Your task to perform on an android device: see sites visited before in the chrome app Image 0: 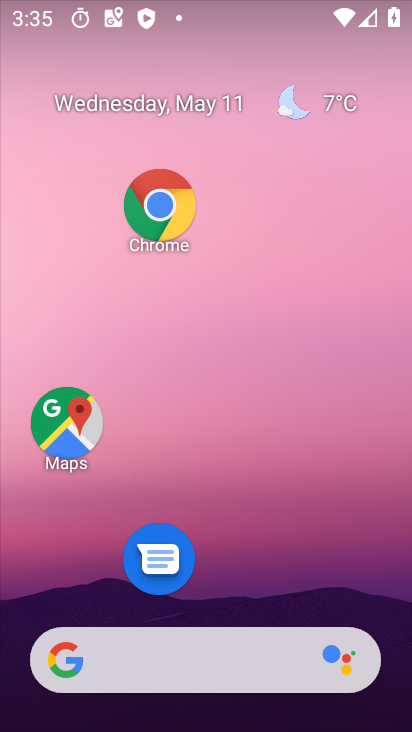
Step 0: click (154, 215)
Your task to perform on an android device: see sites visited before in the chrome app Image 1: 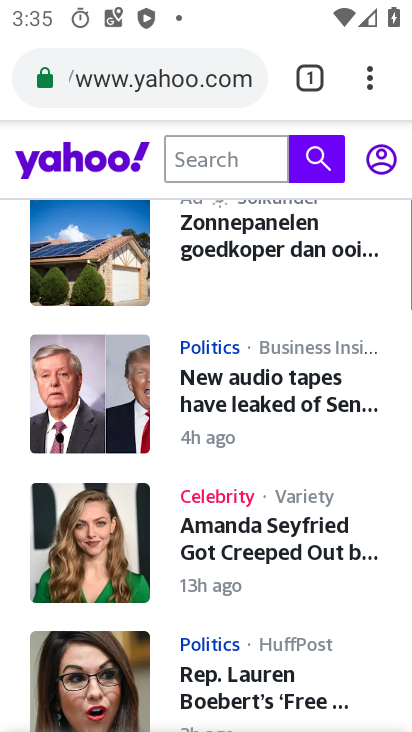
Step 1: click (308, 77)
Your task to perform on an android device: see sites visited before in the chrome app Image 2: 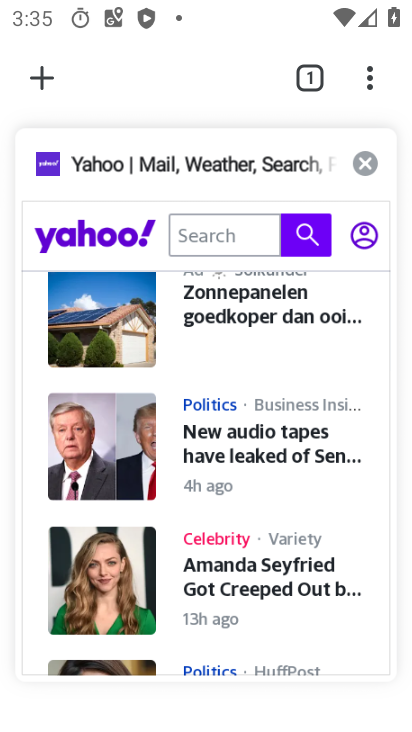
Step 2: task complete